Your task to perform on an android device: Go to accessibility settings Image 0: 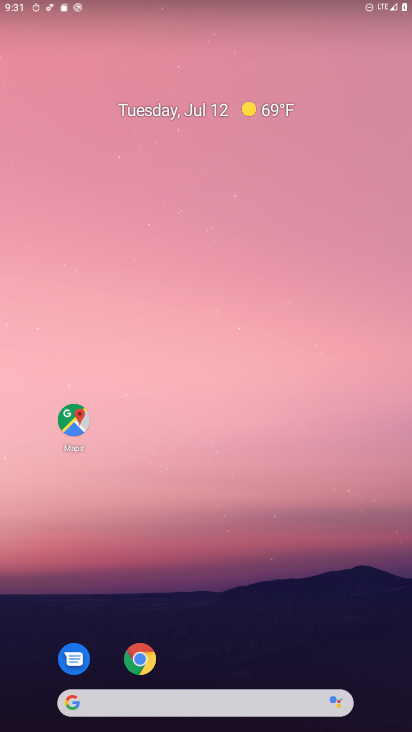
Step 0: drag from (217, 720) to (217, 153)
Your task to perform on an android device: Go to accessibility settings Image 1: 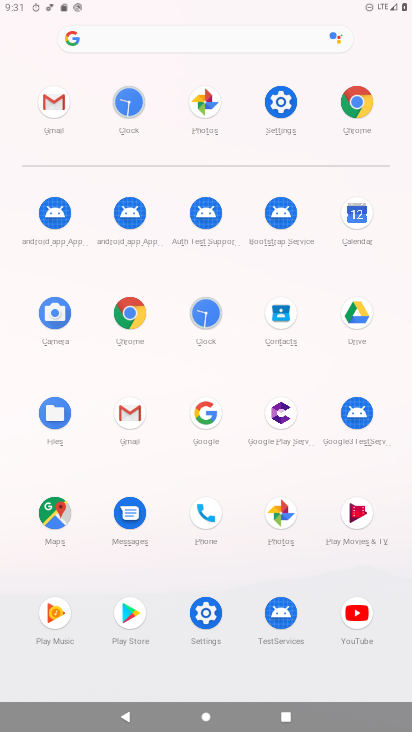
Step 1: click (288, 101)
Your task to perform on an android device: Go to accessibility settings Image 2: 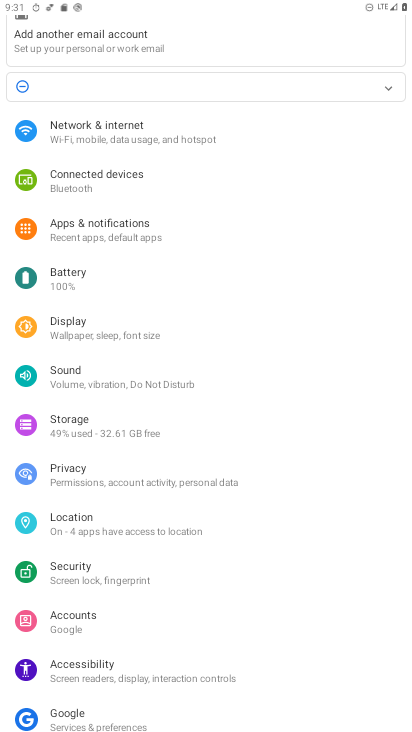
Step 2: click (79, 671)
Your task to perform on an android device: Go to accessibility settings Image 3: 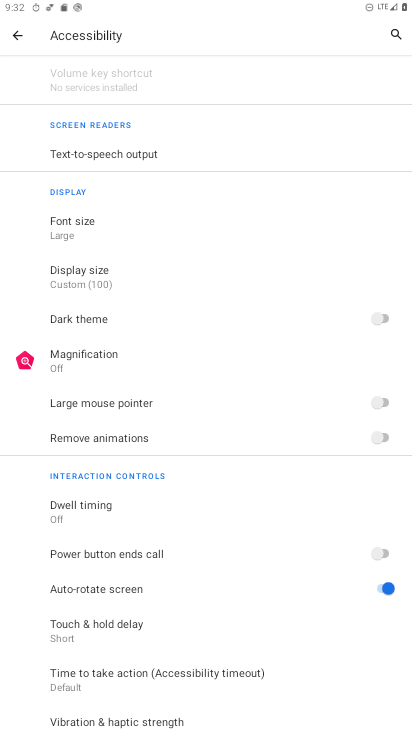
Step 3: task complete